Your task to perform on an android device: change the clock display to analog Image 0: 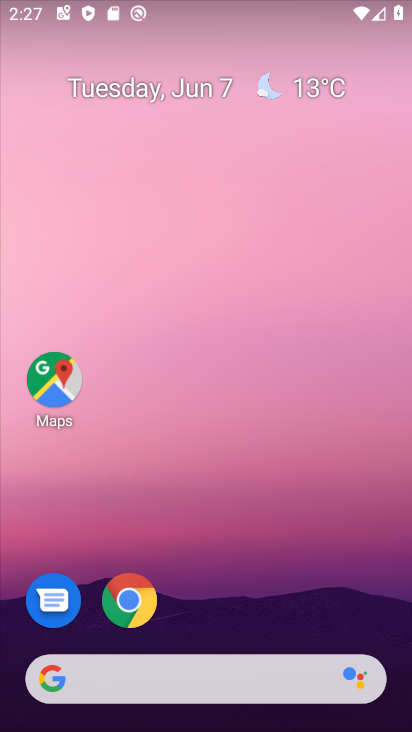
Step 0: drag from (214, 445) to (212, 71)
Your task to perform on an android device: change the clock display to analog Image 1: 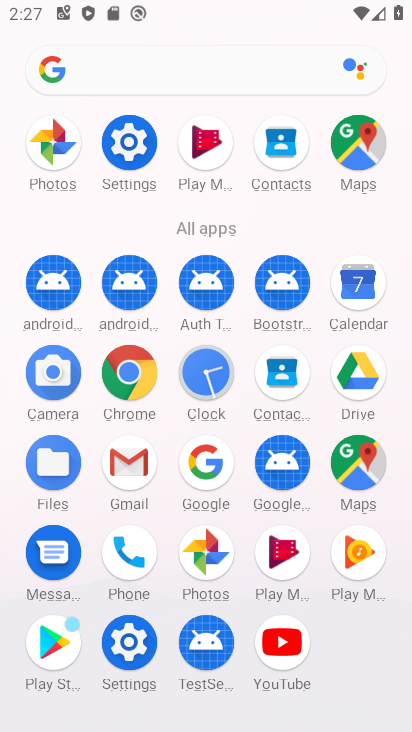
Step 1: click (215, 371)
Your task to perform on an android device: change the clock display to analog Image 2: 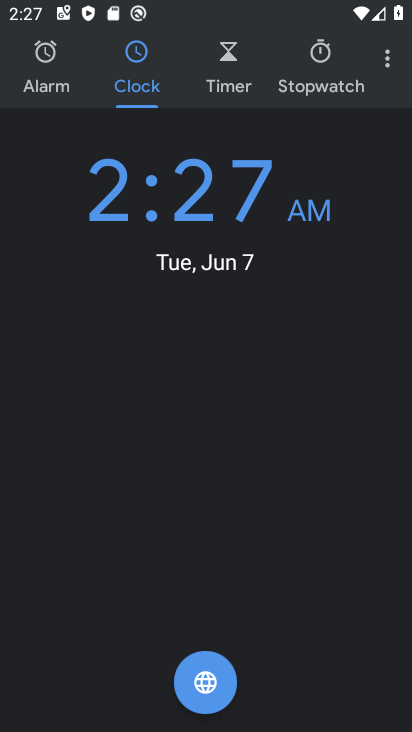
Step 2: click (379, 65)
Your task to perform on an android device: change the clock display to analog Image 3: 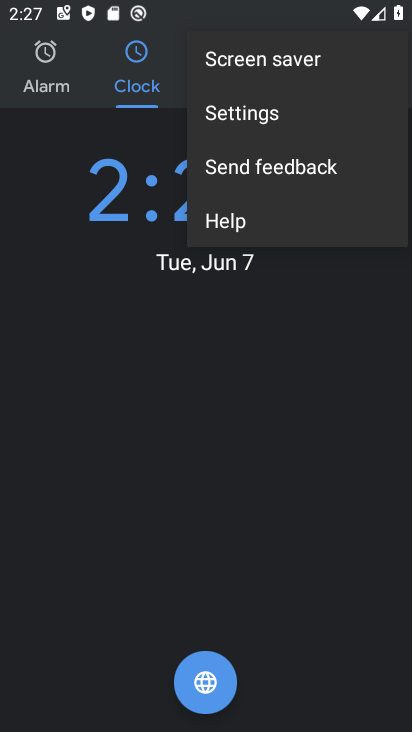
Step 3: click (265, 120)
Your task to perform on an android device: change the clock display to analog Image 4: 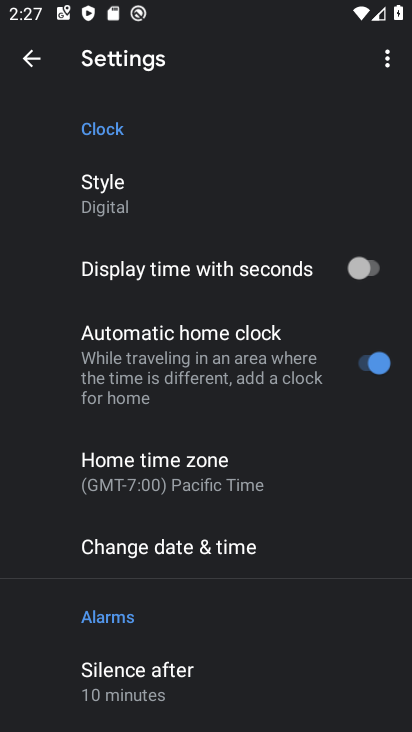
Step 4: click (168, 199)
Your task to perform on an android device: change the clock display to analog Image 5: 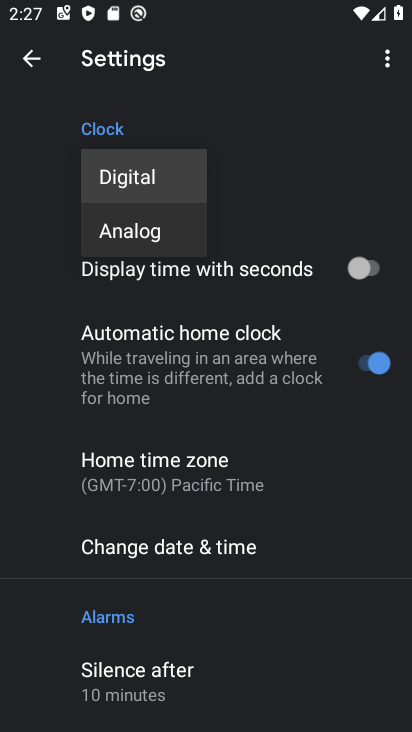
Step 5: click (139, 228)
Your task to perform on an android device: change the clock display to analog Image 6: 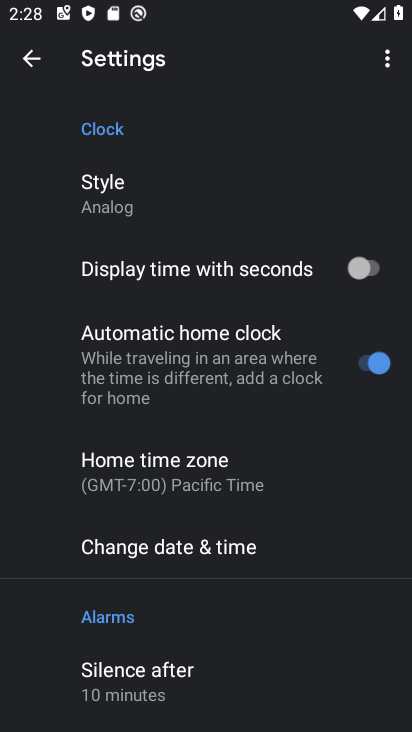
Step 6: task complete